Your task to perform on an android device: Search for vegetarian restaurants on Maps Image 0: 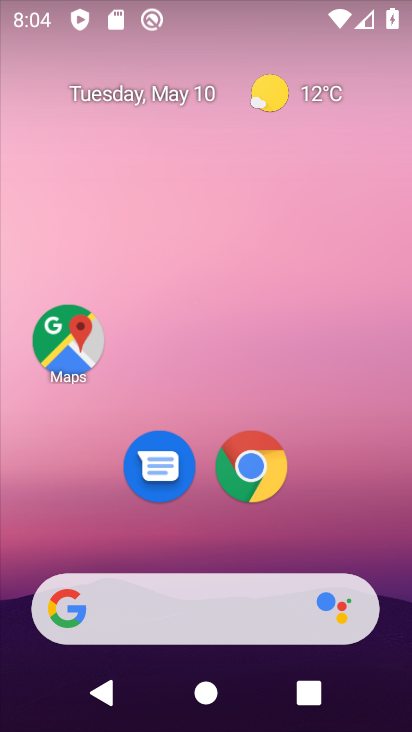
Step 0: click (78, 343)
Your task to perform on an android device: Search for vegetarian restaurants on Maps Image 1: 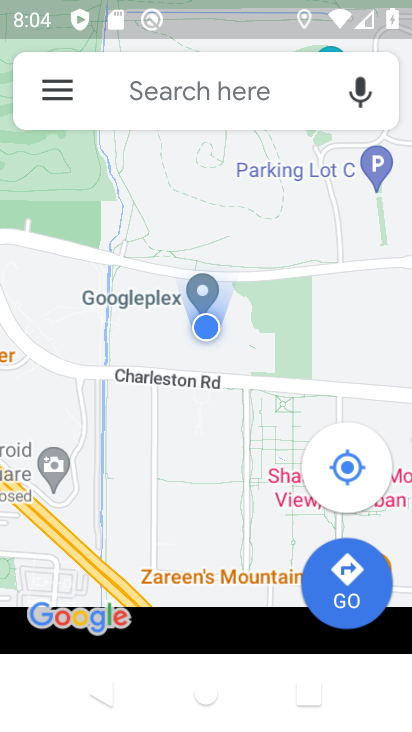
Step 1: click (195, 102)
Your task to perform on an android device: Search for vegetarian restaurants on Maps Image 2: 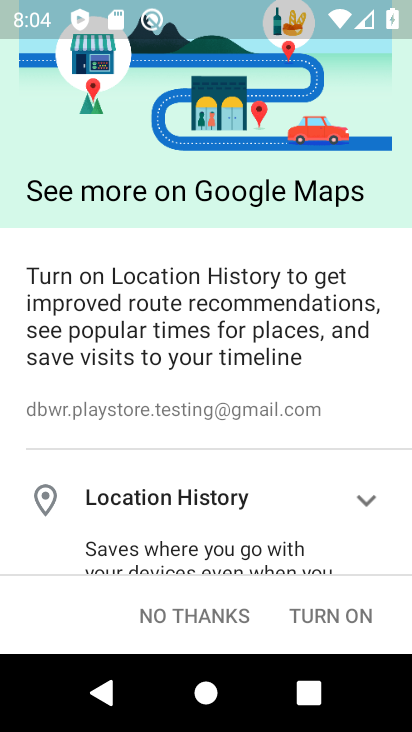
Step 2: click (170, 610)
Your task to perform on an android device: Search for vegetarian restaurants on Maps Image 3: 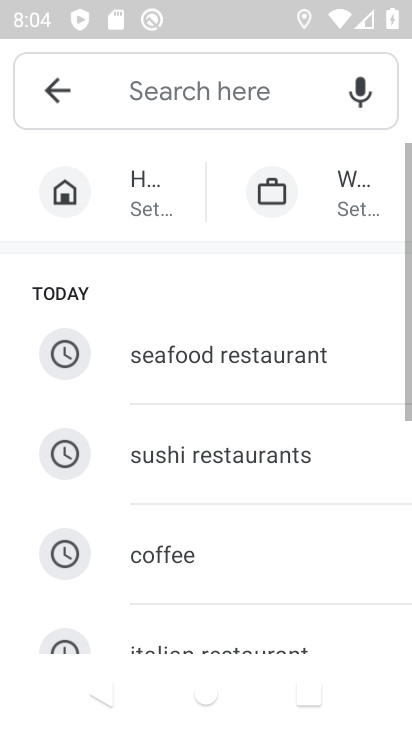
Step 3: click (145, 85)
Your task to perform on an android device: Search for vegetarian restaurants on Maps Image 4: 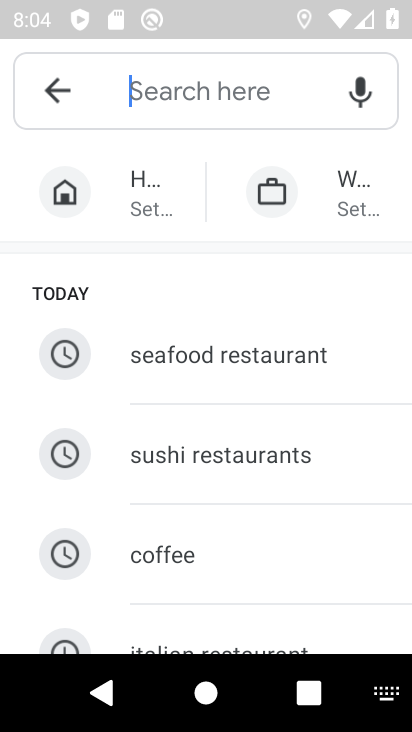
Step 4: type "vegetarian restaurants"
Your task to perform on an android device: Search for vegetarian restaurants on Maps Image 5: 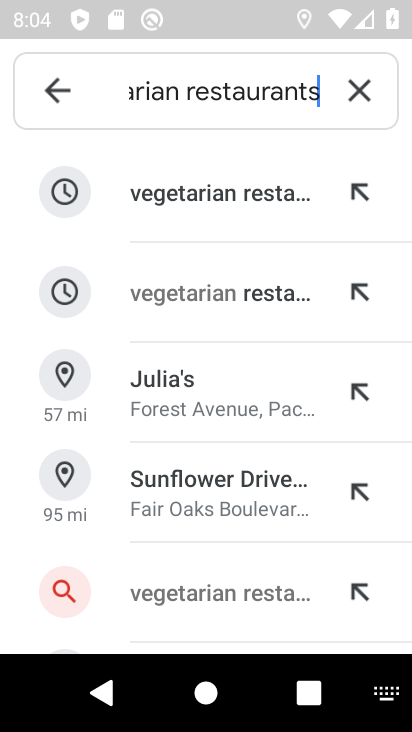
Step 5: click (277, 202)
Your task to perform on an android device: Search for vegetarian restaurants on Maps Image 6: 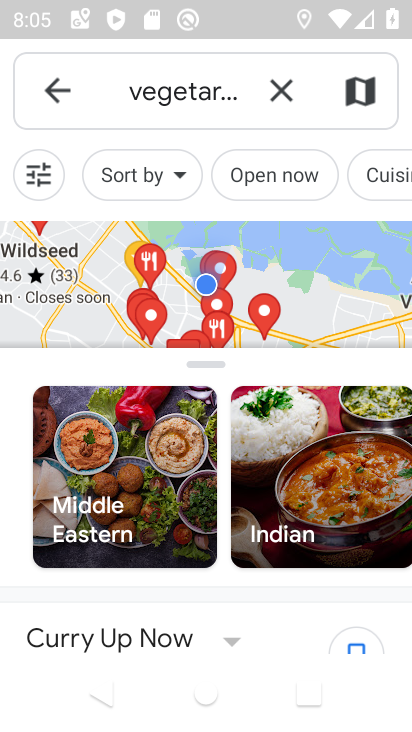
Step 6: task complete